Your task to perform on an android device: turn smart compose on in the gmail app Image 0: 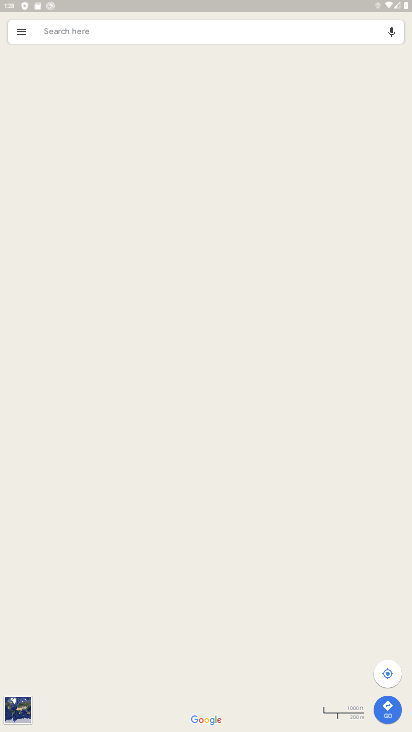
Step 0: press home button
Your task to perform on an android device: turn smart compose on in the gmail app Image 1: 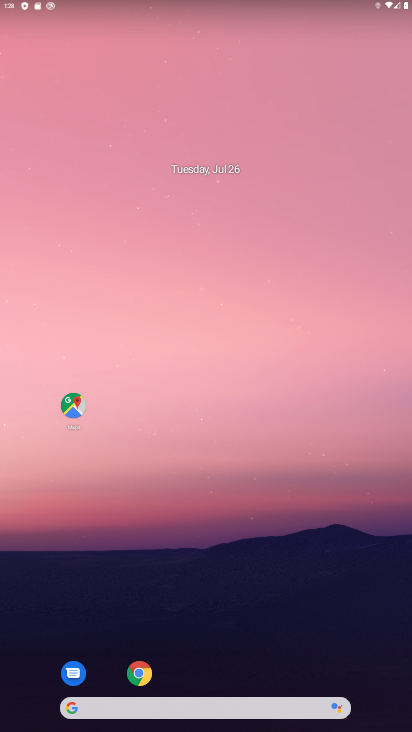
Step 1: drag from (252, 678) to (161, 133)
Your task to perform on an android device: turn smart compose on in the gmail app Image 2: 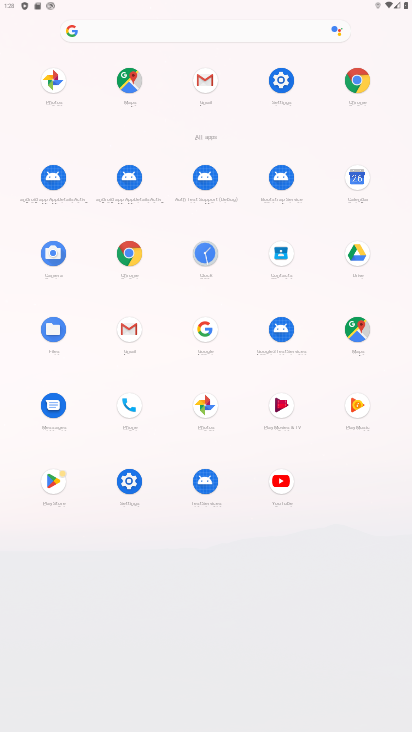
Step 2: click (211, 79)
Your task to perform on an android device: turn smart compose on in the gmail app Image 3: 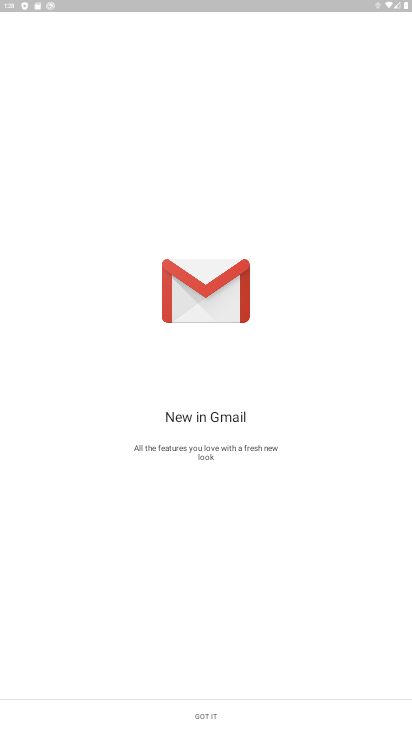
Step 3: click (206, 725)
Your task to perform on an android device: turn smart compose on in the gmail app Image 4: 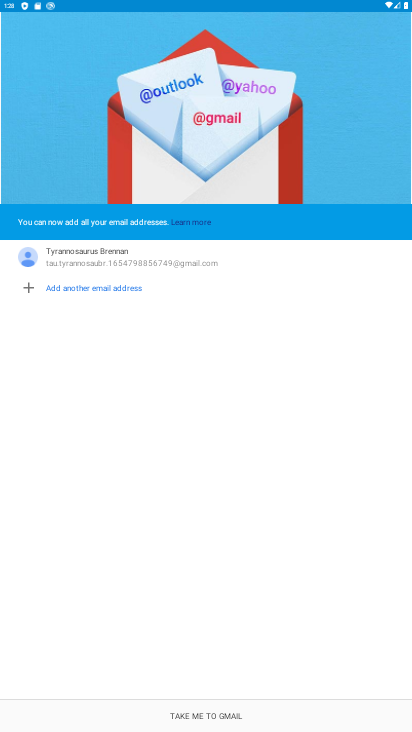
Step 4: click (206, 725)
Your task to perform on an android device: turn smart compose on in the gmail app Image 5: 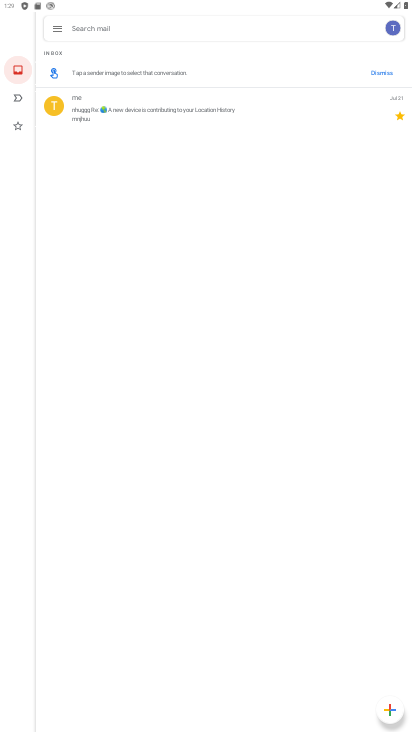
Step 5: click (53, 28)
Your task to perform on an android device: turn smart compose on in the gmail app Image 6: 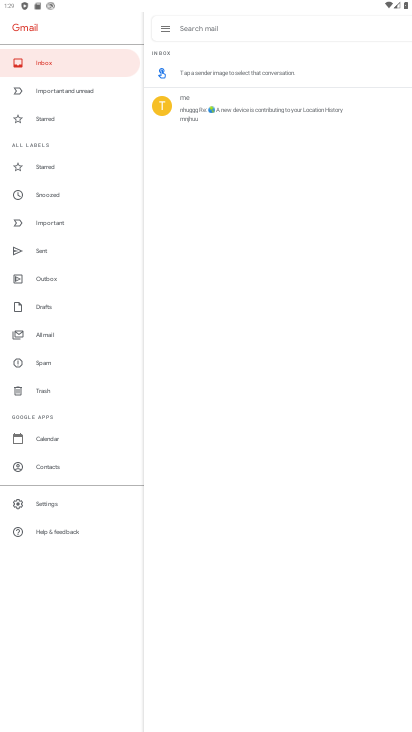
Step 6: click (58, 504)
Your task to perform on an android device: turn smart compose on in the gmail app Image 7: 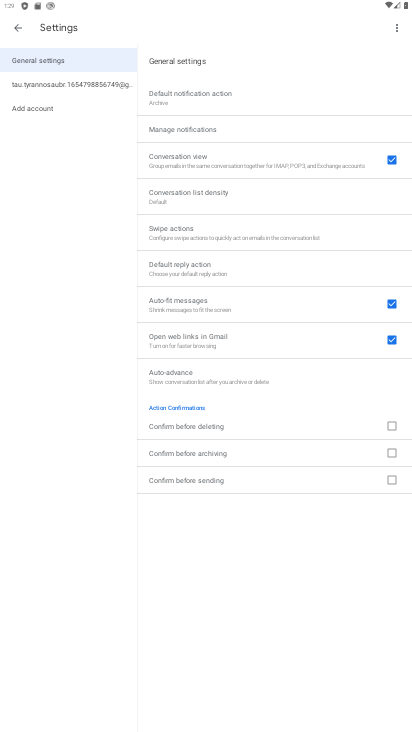
Step 7: click (25, 94)
Your task to perform on an android device: turn smart compose on in the gmail app Image 8: 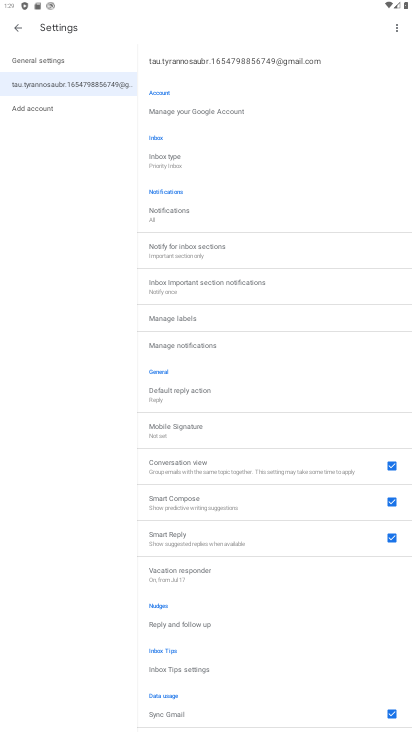
Step 8: task complete